Your task to perform on an android device: change the clock display to digital Image 0: 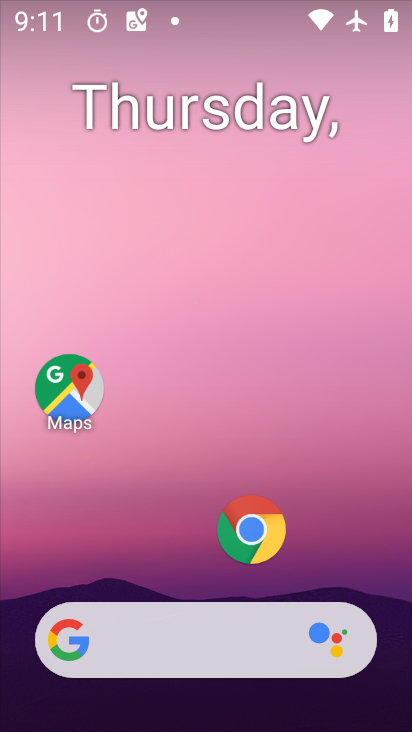
Step 0: press home button
Your task to perform on an android device: change the clock display to digital Image 1: 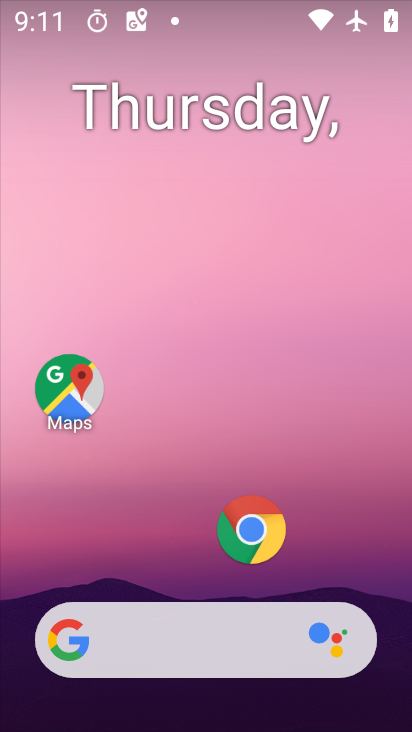
Step 1: drag from (198, 576) to (232, 116)
Your task to perform on an android device: change the clock display to digital Image 2: 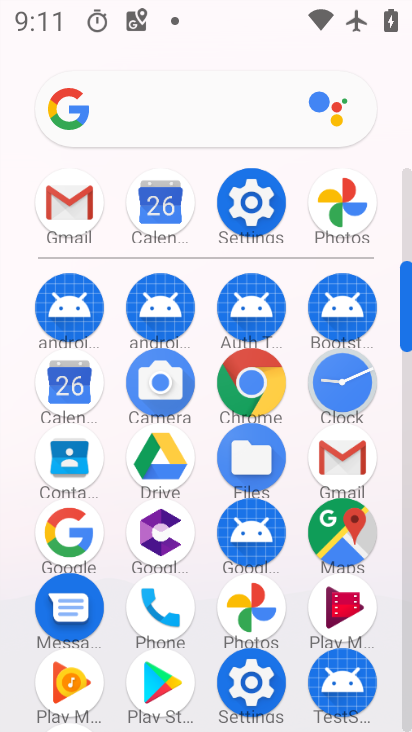
Step 2: click (335, 379)
Your task to perform on an android device: change the clock display to digital Image 3: 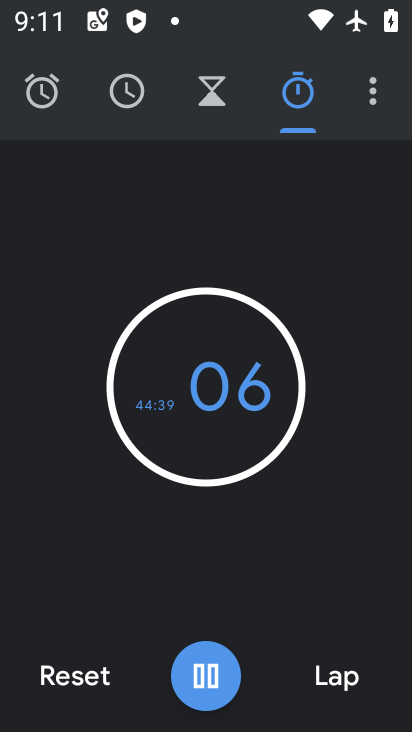
Step 3: click (66, 677)
Your task to perform on an android device: change the clock display to digital Image 4: 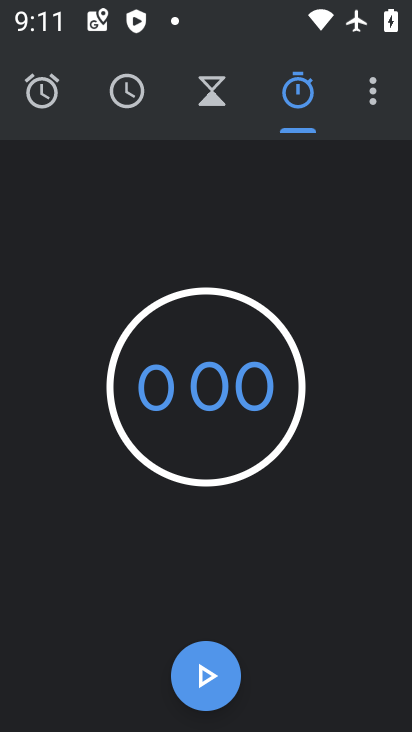
Step 4: click (382, 90)
Your task to perform on an android device: change the clock display to digital Image 5: 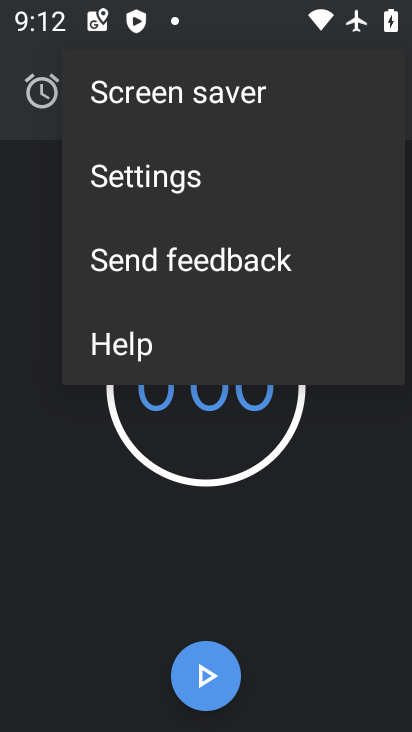
Step 5: click (219, 167)
Your task to perform on an android device: change the clock display to digital Image 6: 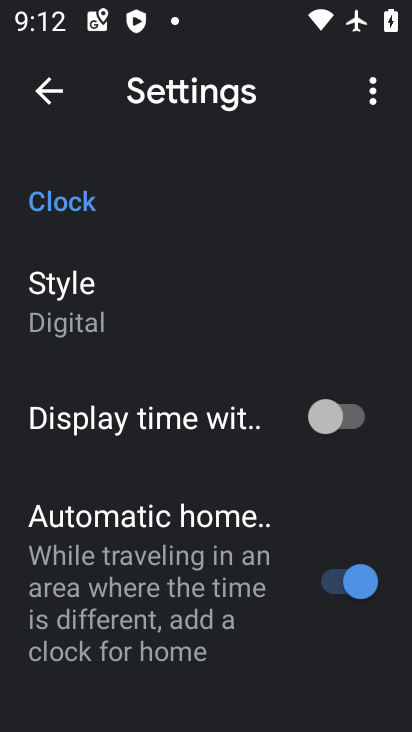
Step 6: click (134, 299)
Your task to perform on an android device: change the clock display to digital Image 7: 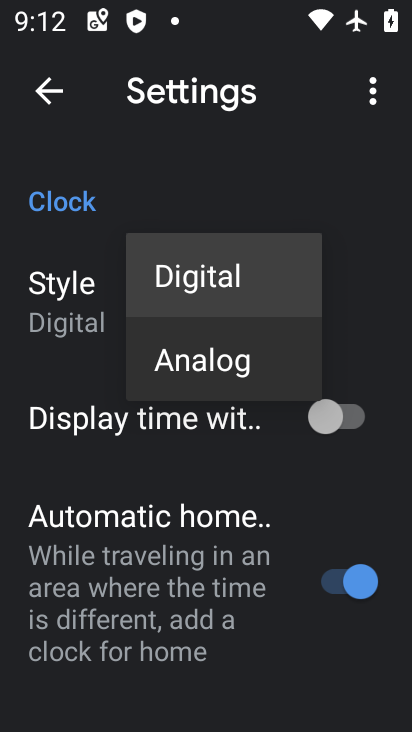
Step 7: click (249, 280)
Your task to perform on an android device: change the clock display to digital Image 8: 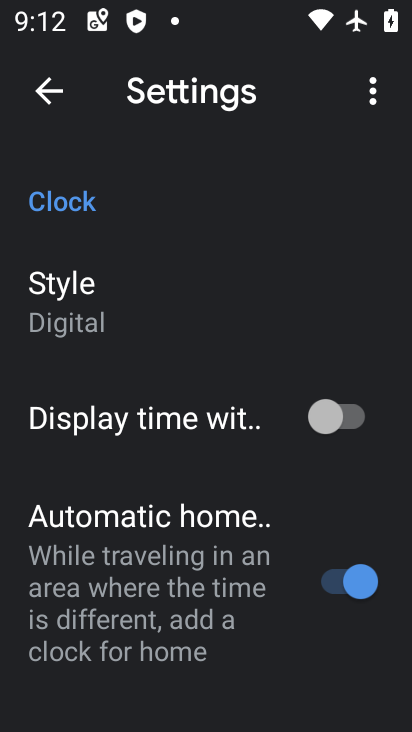
Step 8: task complete